Your task to perform on an android device: Go to location settings Image 0: 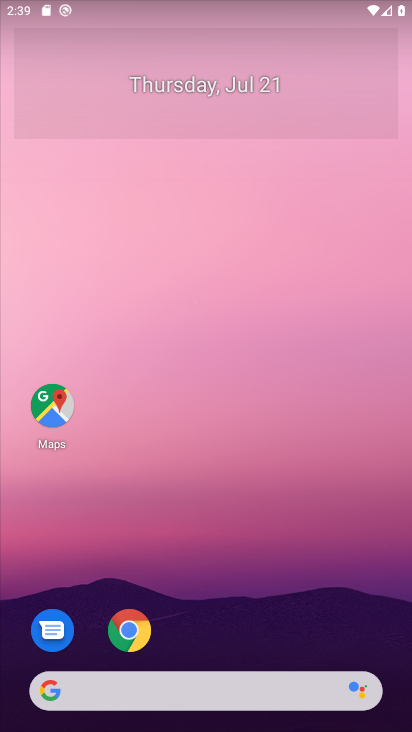
Step 0: drag from (317, 505) to (257, 52)
Your task to perform on an android device: Go to location settings Image 1: 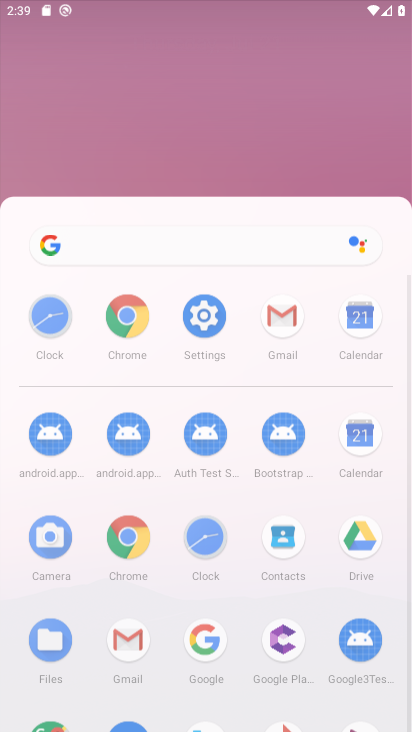
Step 1: drag from (265, 441) to (220, 47)
Your task to perform on an android device: Go to location settings Image 2: 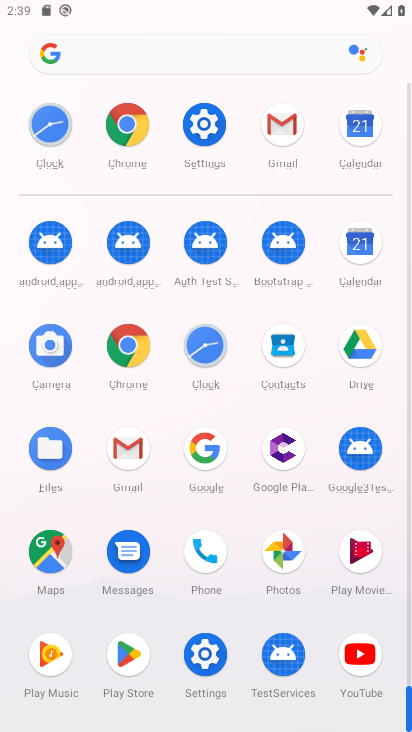
Step 2: click (209, 651)
Your task to perform on an android device: Go to location settings Image 3: 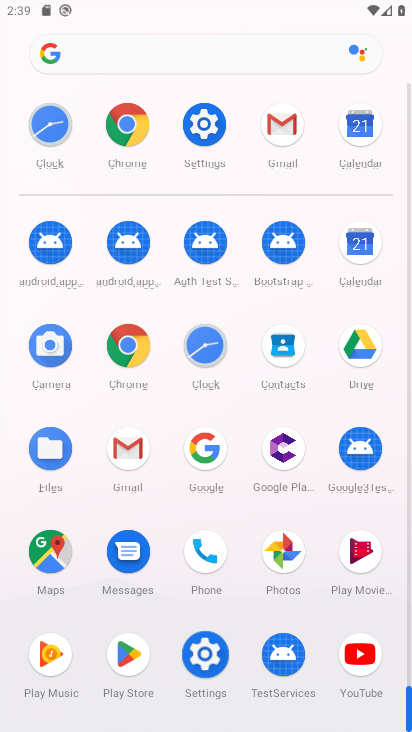
Step 3: click (207, 653)
Your task to perform on an android device: Go to location settings Image 4: 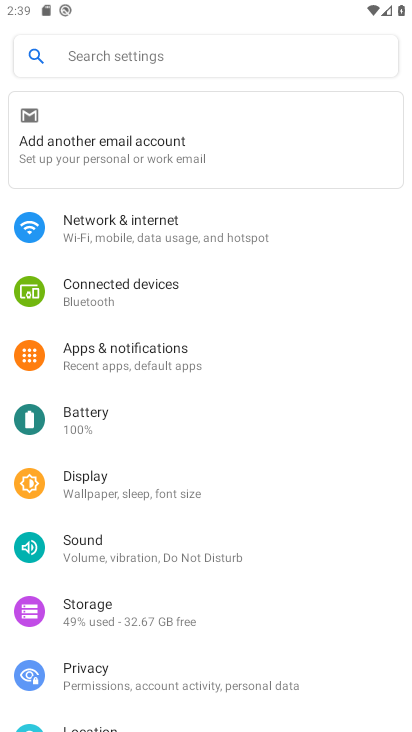
Step 4: drag from (122, 582) to (123, 305)
Your task to perform on an android device: Go to location settings Image 5: 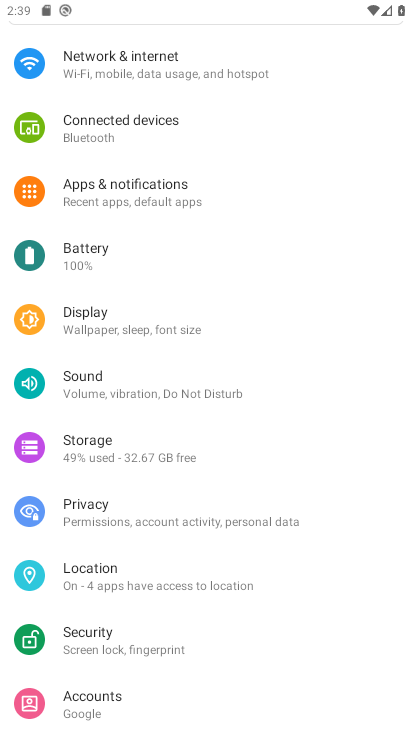
Step 5: drag from (129, 436) to (133, 290)
Your task to perform on an android device: Go to location settings Image 6: 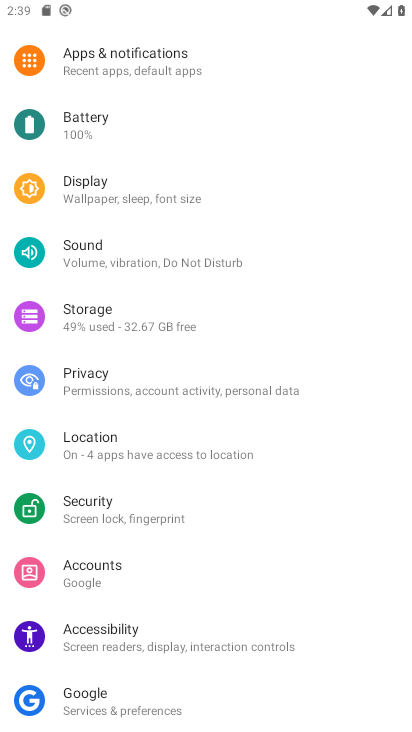
Step 6: click (105, 436)
Your task to perform on an android device: Go to location settings Image 7: 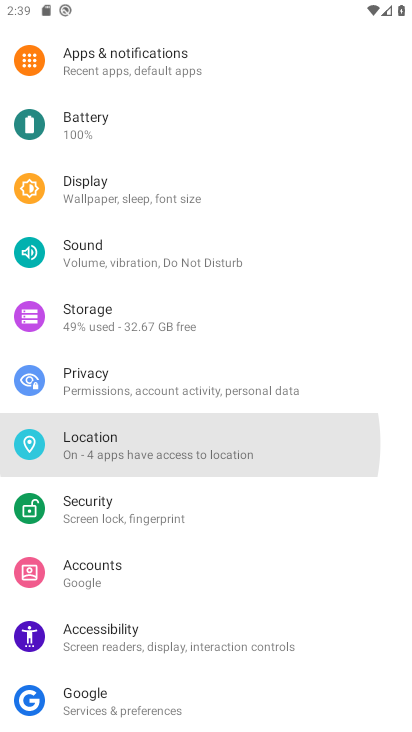
Step 7: click (105, 436)
Your task to perform on an android device: Go to location settings Image 8: 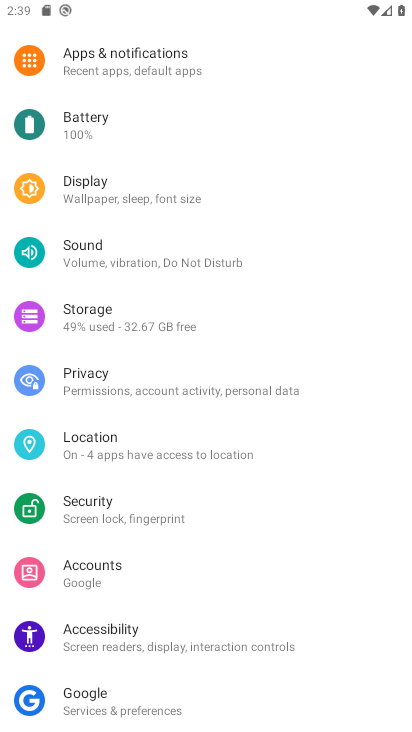
Step 8: click (105, 435)
Your task to perform on an android device: Go to location settings Image 9: 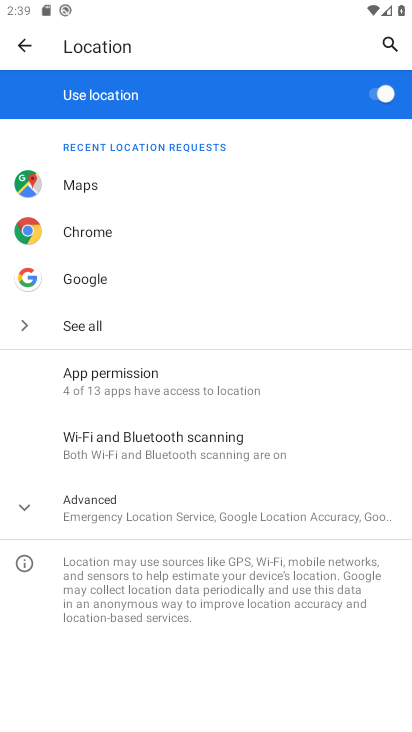
Step 9: task complete